Your task to perform on an android device: Open privacy settings Image 0: 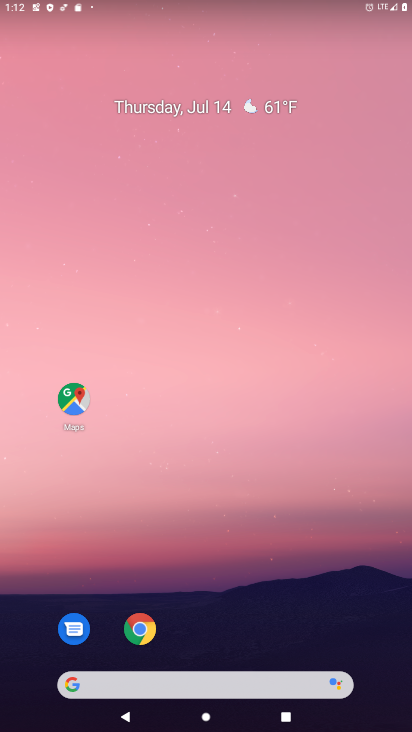
Step 0: drag from (234, 598) to (185, 227)
Your task to perform on an android device: Open privacy settings Image 1: 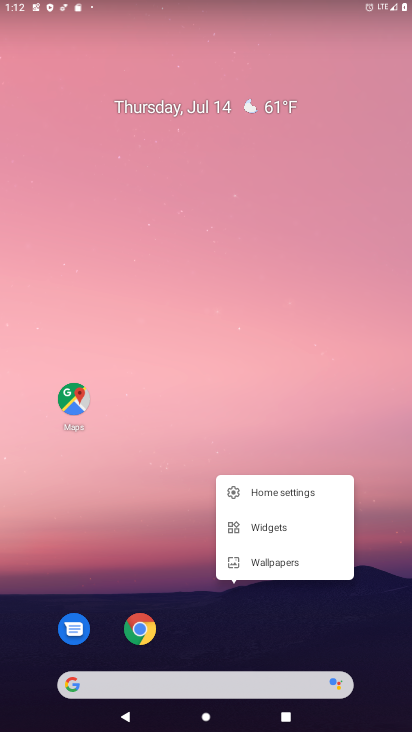
Step 1: click (108, 562)
Your task to perform on an android device: Open privacy settings Image 2: 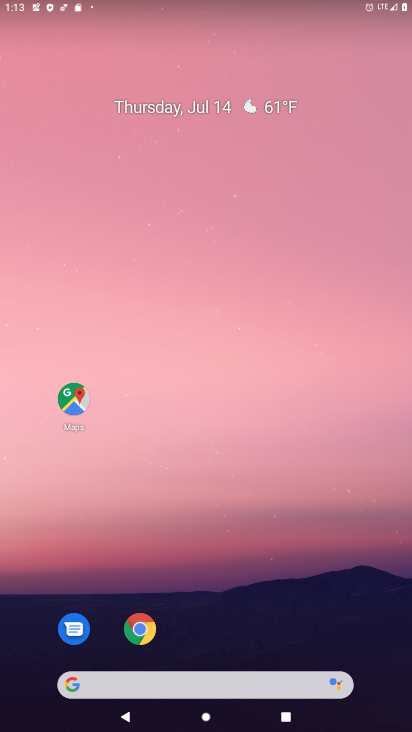
Step 2: drag from (215, 563) to (205, 192)
Your task to perform on an android device: Open privacy settings Image 3: 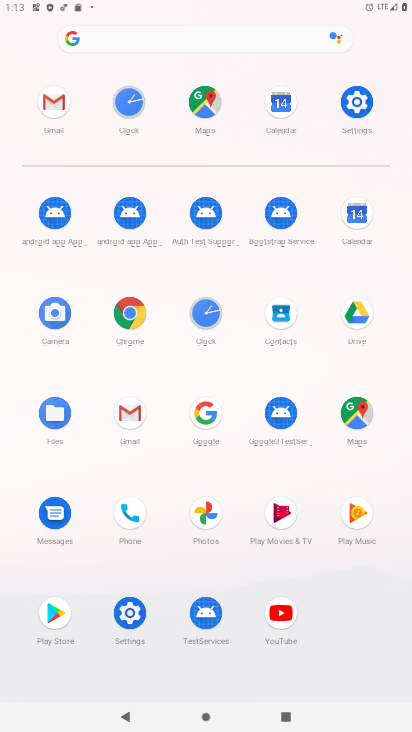
Step 3: click (357, 103)
Your task to perform on an android device: Open privacy settings Image 4: 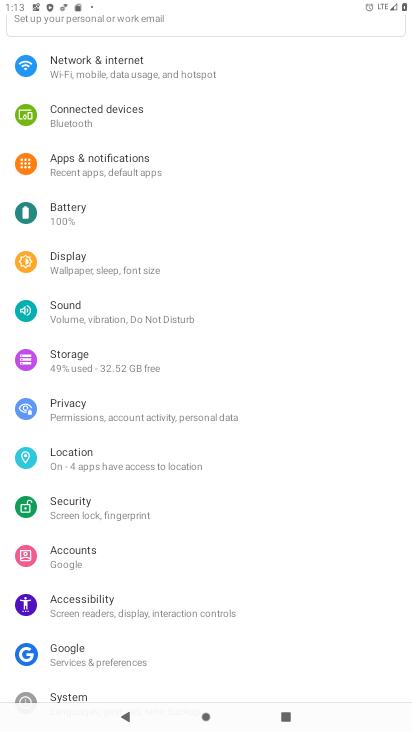
Step 4: click (69, 407)
Your task to perform on an android device: Open privacy settings Image 5: 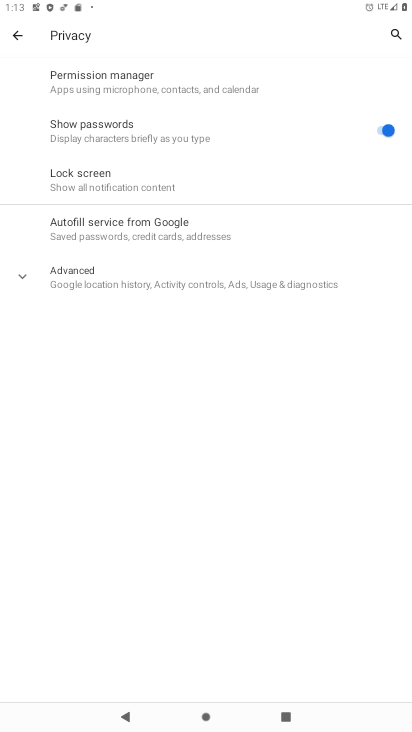
Step 5: task complete